Your task to perform on an android device: turn off sleep mode Image 0: 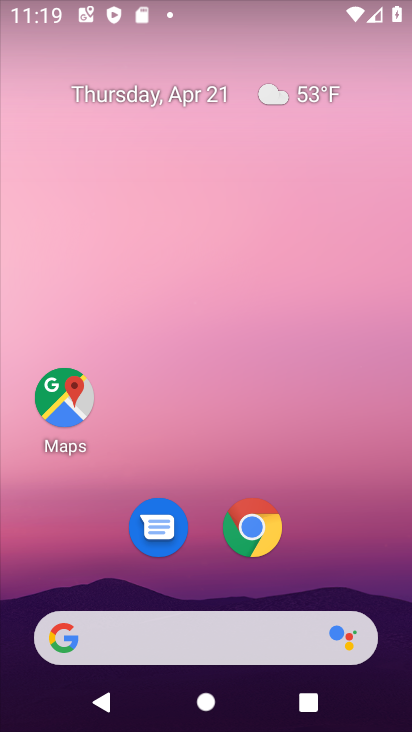
Step 0: drag from (353, 566) to (346, 234)
Your task to perform on an android device: turn off sleep mode Image 1: 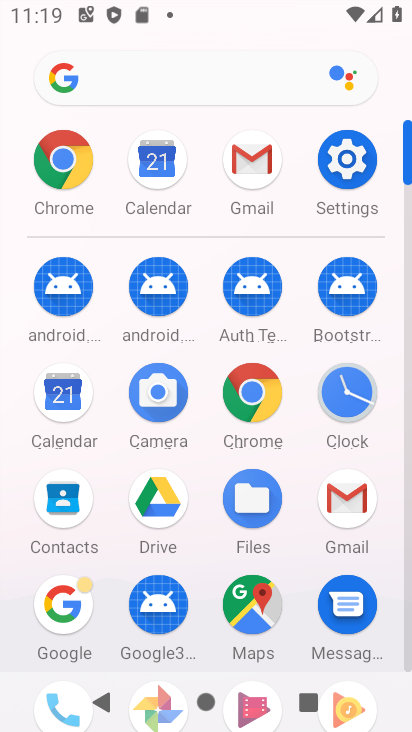
Step 1: click (366, 171)
Your task to perform on an android device: turn off sleep mode Image 2: 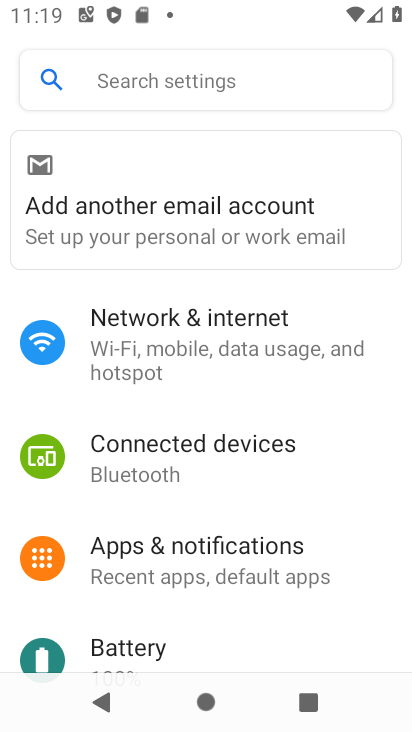
Step 2: drag from (351, 622) to (372, 452)
Your task to perform on an android device: turn off sleep mode Image 3: 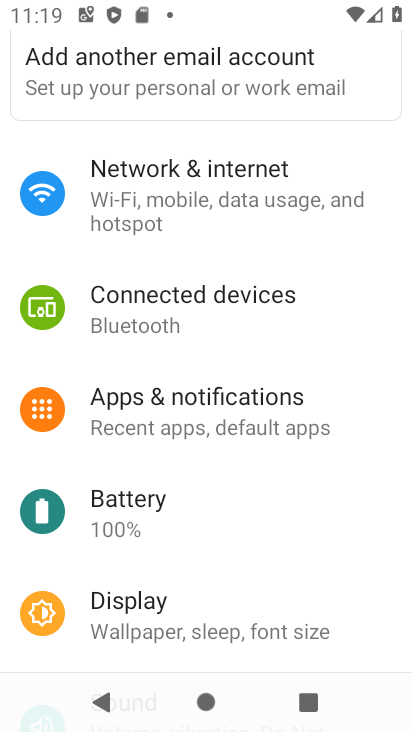
Step 3: drag from (364, 555) to (380, 381)
Your task to perform on an android device: turn off sleep mode Image 4: 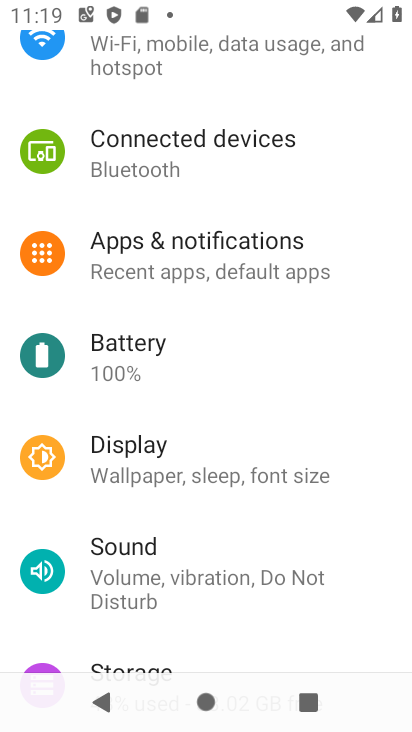
Step 4: drag from (374, 594) to (396, 387)
Your task to perform on an android device: turn off sleep mode Image 5: 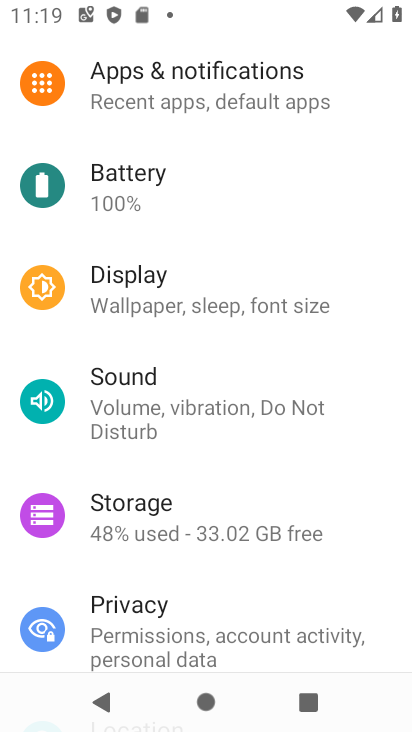
Step 5: drag from (374, 572) to (372, 401)
Your task to perform on an android device: turn off sleep mode Image 6: 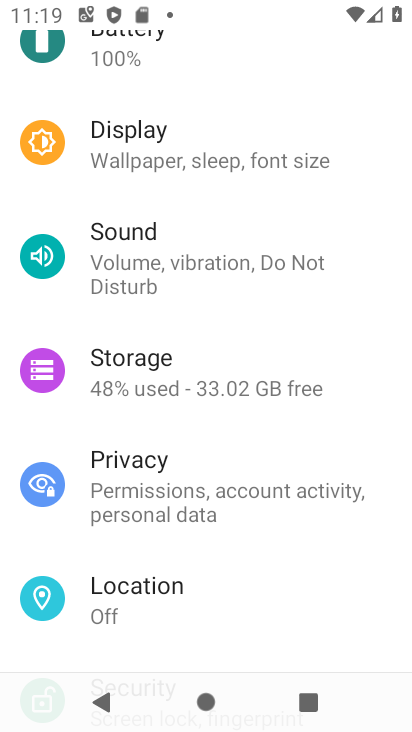
Step 6: click (278, 174)
Your task to perform on an android device: turn off sleep mode Image 7: 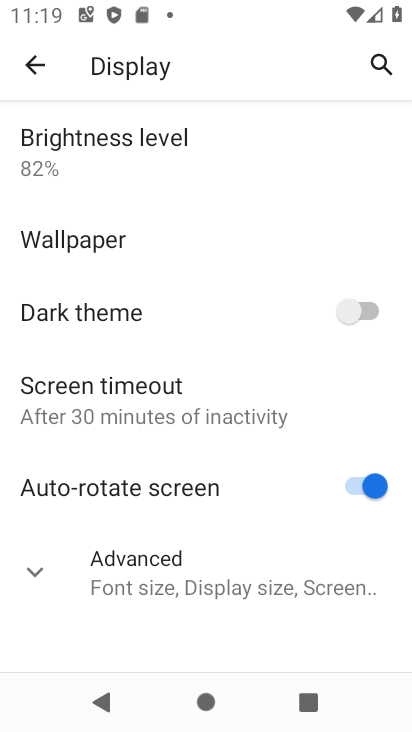
Step 7: click (225, 585)
Your task to perform on an android device: turn off sleep mode Image 8: 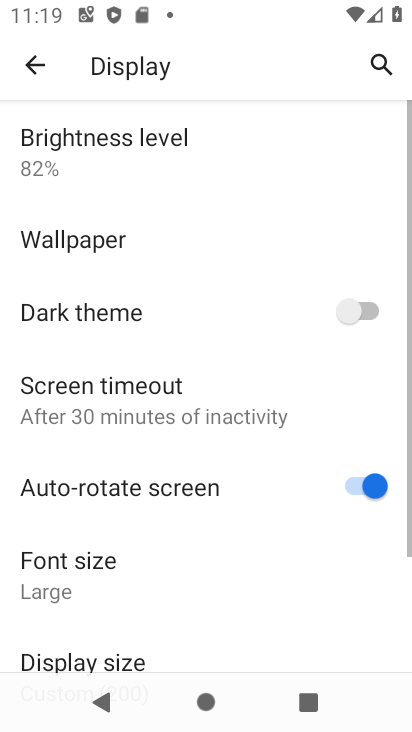
Step 8: task complete